Your task to perform on an android device: Open Chrome and go to settings Image 0: 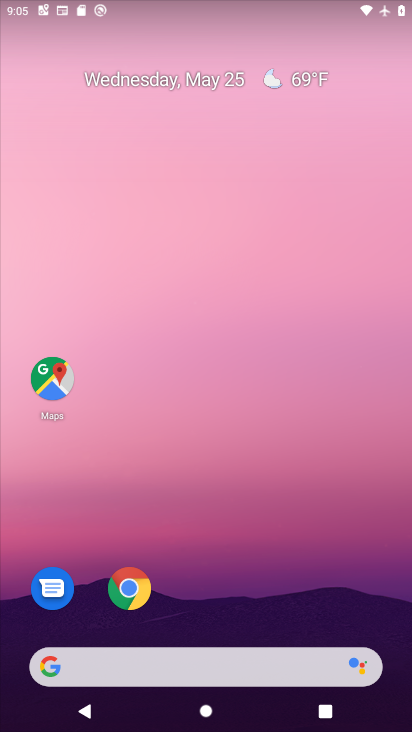
Step 0: drag from (377, 620) to (386, 173)
Your task to perform on an android device: Open Chrome and go to settings Image 1: 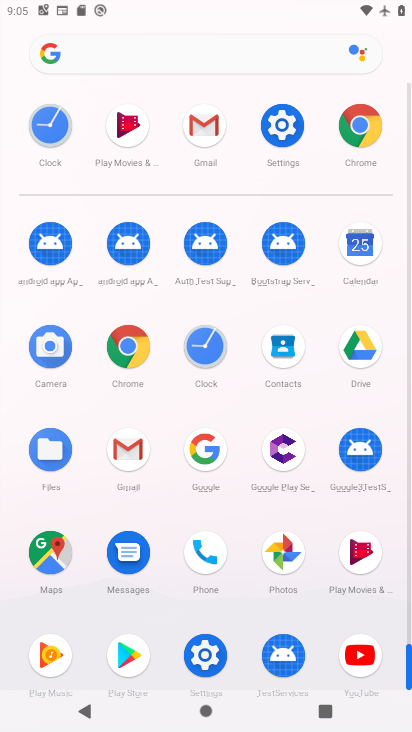
Step 1: click (130, 353)
Your task to perform on an android device: Open Chrome and go to settings Image 2: 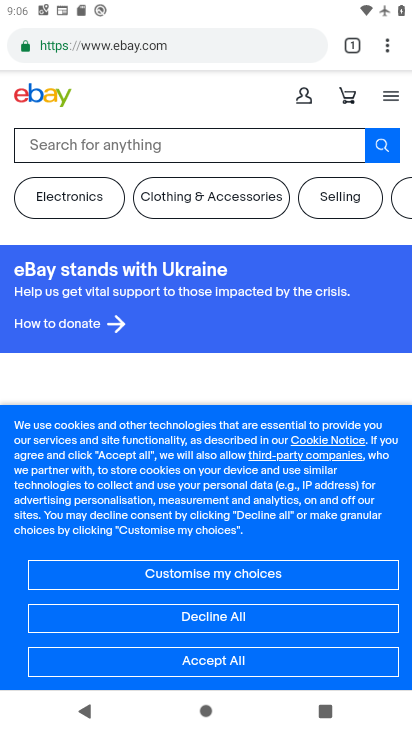
Step 2: click (388, 52)
Your task to perform on an android device: Open Chrome and go to settings Image 3: 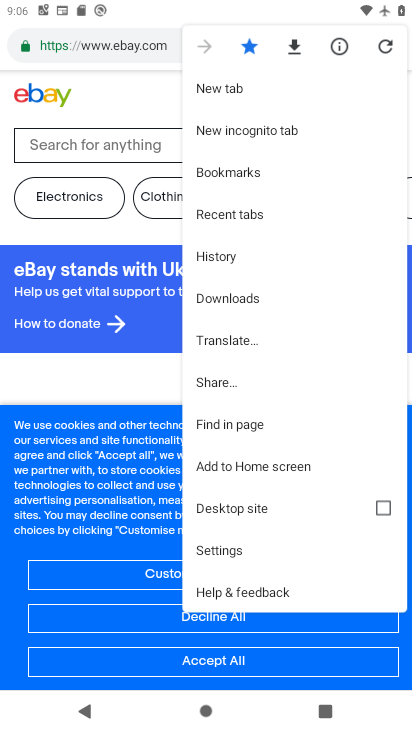
Step 3: click (243, 552)
Your task to perform on an android device: Open Chrome and go to settings Image 4: 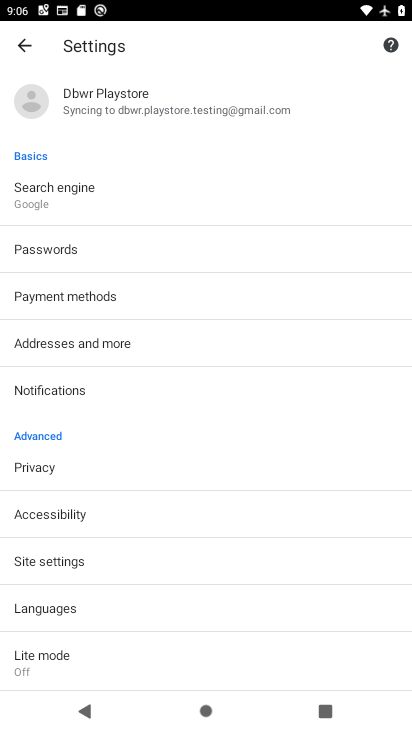
Step 4: task complete